Your task to perform on an android device: turn notification dots off Image 0: 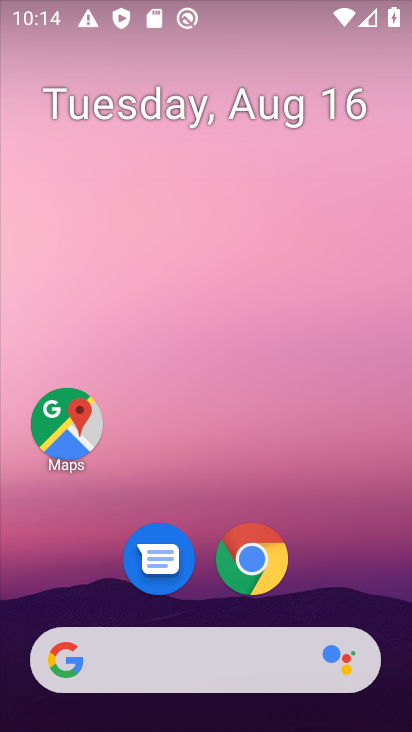
Step 0: drag from (187, 600) to (188, 114)
Your task to perform on an android device: turn notification dots off Image 1: 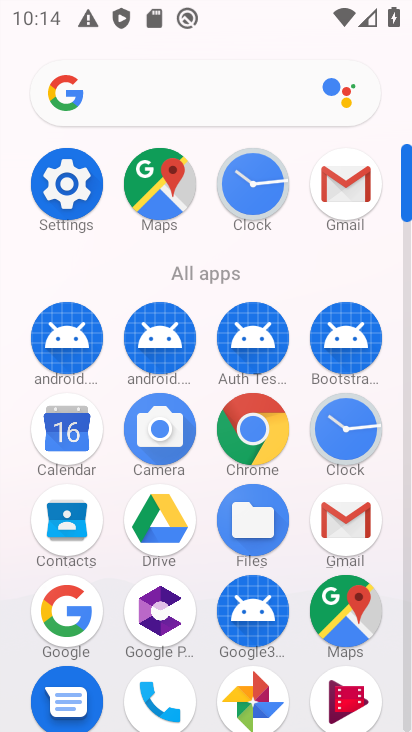
Step 1: click (64, 182)
Your task to perform on an android device: turn notification dots off Image 2: 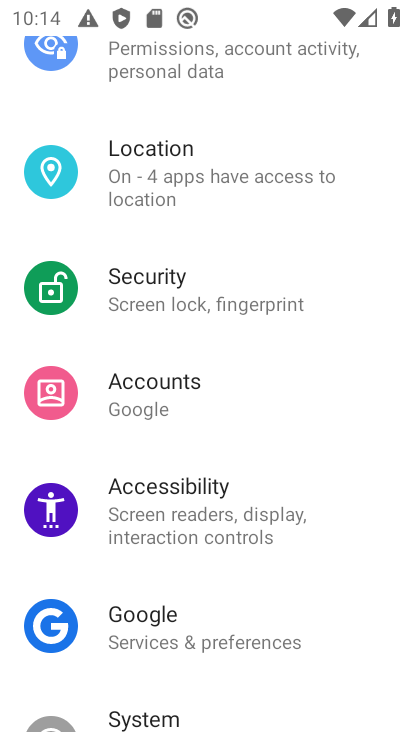
Step 2: drag from (250, 159) to (156, 715)
Your task to perform on an android device: turn notification dots off Image 3: 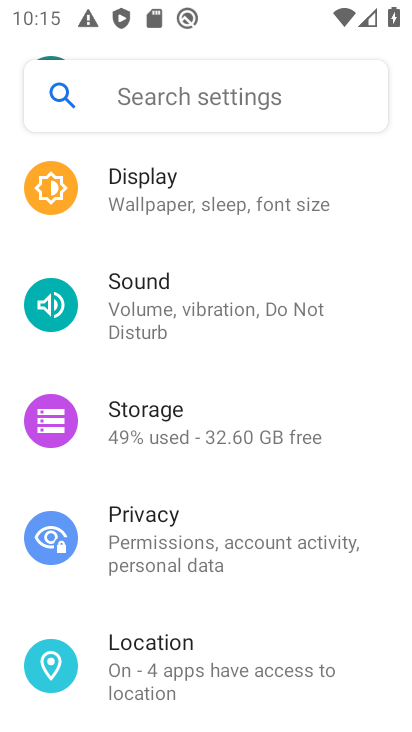
Step 3: drag from (227, 513) to (226, 606)
Your task to perform on an android device: turn notification dots off Image 4: 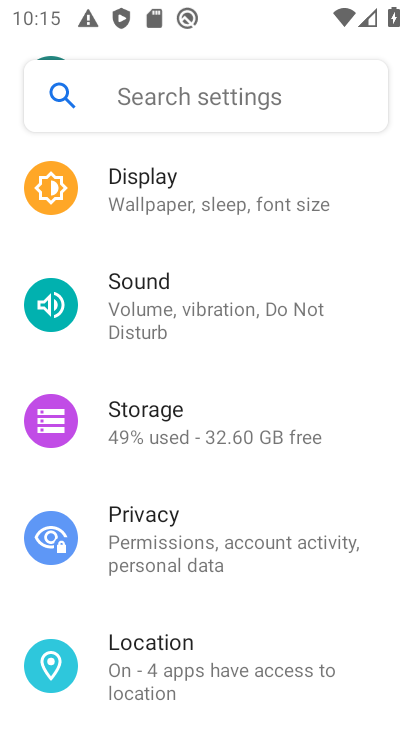
Step 4: drag from (229, 154) to (247, 416)
Your task to perform on an android device: turn notification dots off Image 5: 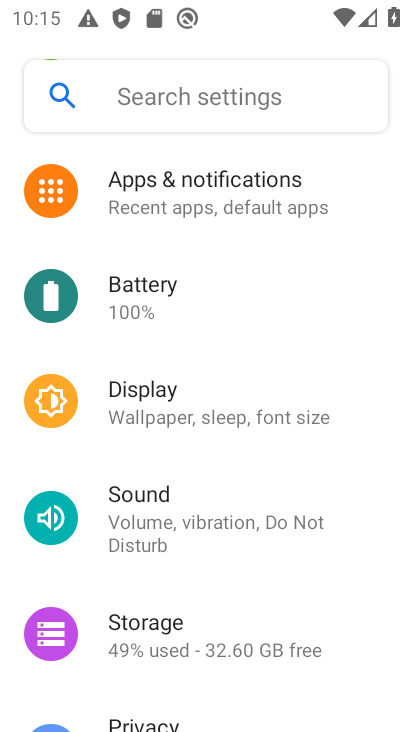
Step 5: click (174, 189)
Your task to perform on an android device: turn notification dots off Image 6: 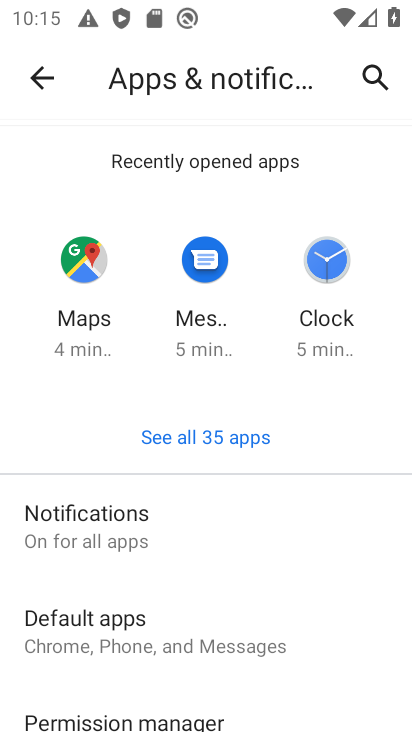
Step 6: drag from (188, 573) to (175, 255)
Your task to perform on an android device: turn notification dots off Image 7: 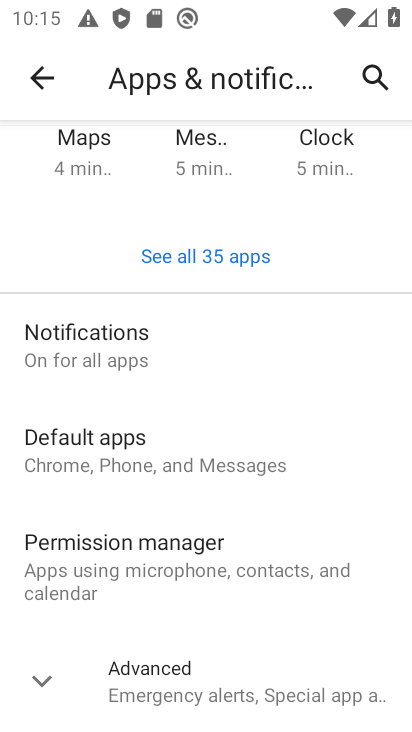
Step 7: click (79, 351)
Your task to perform on an android device: turn notification dots off Image 8: 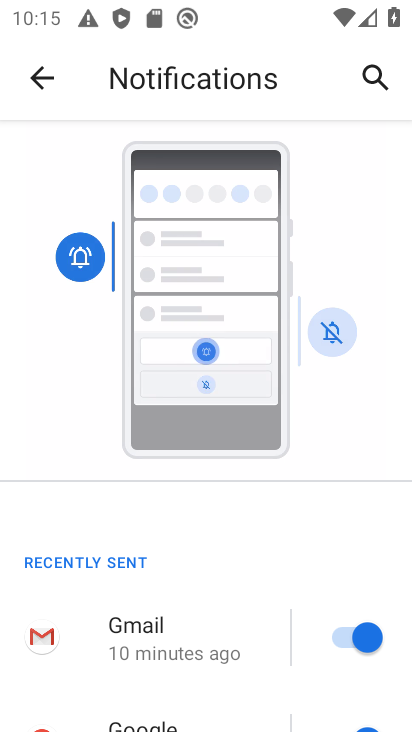
Step 8: drag from (200, 672) to (235, 297)
Your task to perform on an android device: turn notification dots off Image 9: 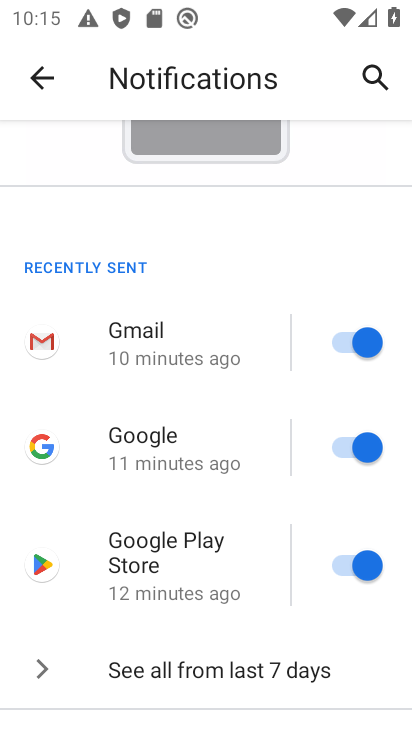
Step 9: drag from (182, 621) to (191, 327)
Your task to perform on an android device: turn notification dots off Image 10: 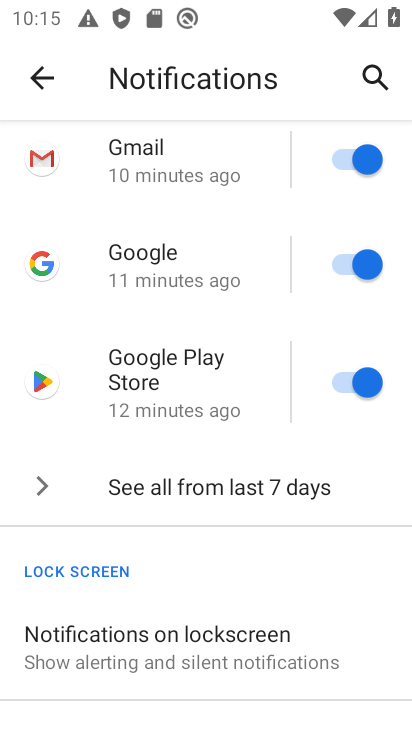
Step 10: drag from (212, 667) to (256, 285)
Your task to perform on an android device: turn notification dots off Image 11: 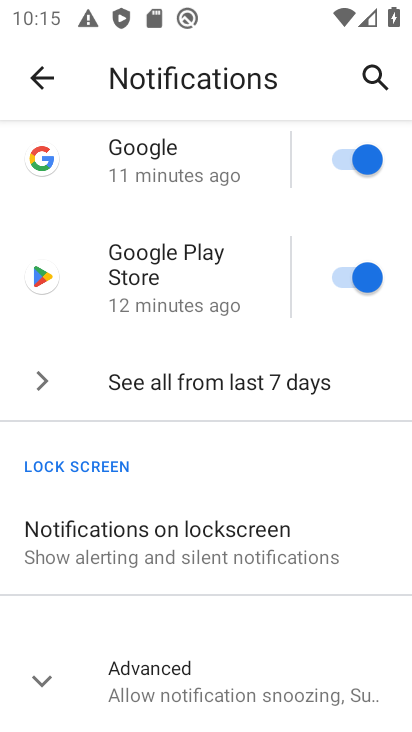
Step 11: drag from (222, 649) to (219, 164)
Your task to perform on an android device: turn notification dots off Image 12: 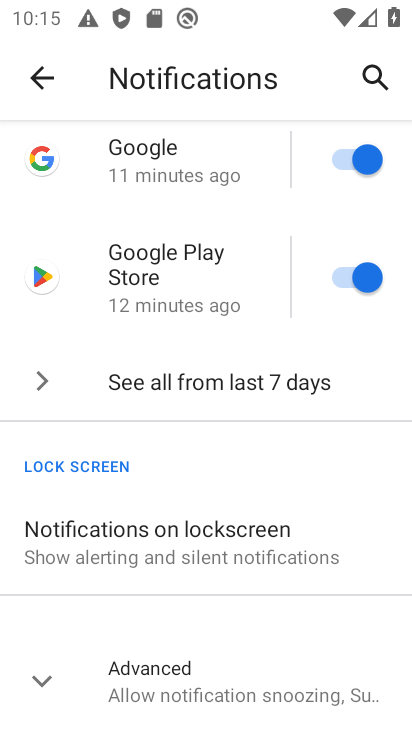
Step 12: click (128, 698)
Your task to perform on an android device: turn notification dots off Image 13: 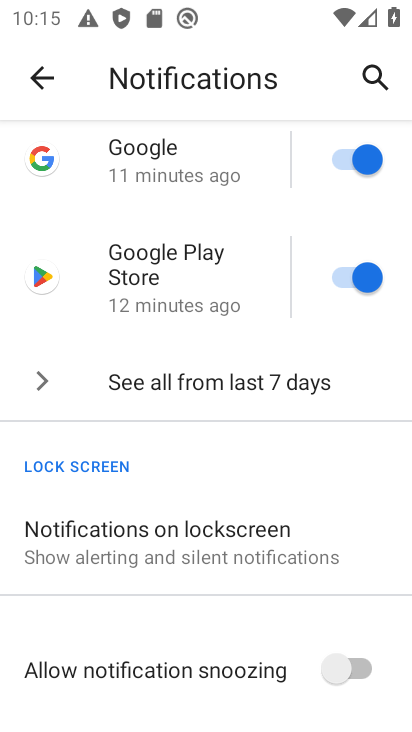
Step 13: drag from (237, 580) to (267, 354)
Your task to perform on an android device: turn notification dots off Image 14: 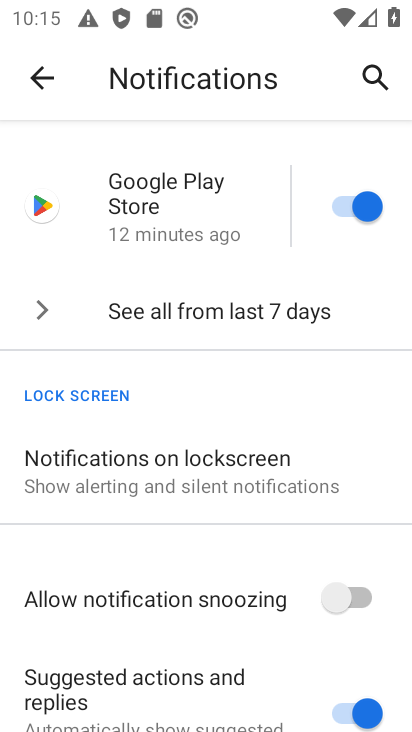
Step 14: drag from (282, 662) to (284, 382)
Your task to perform on an android device: turn notification dots off Image 15: 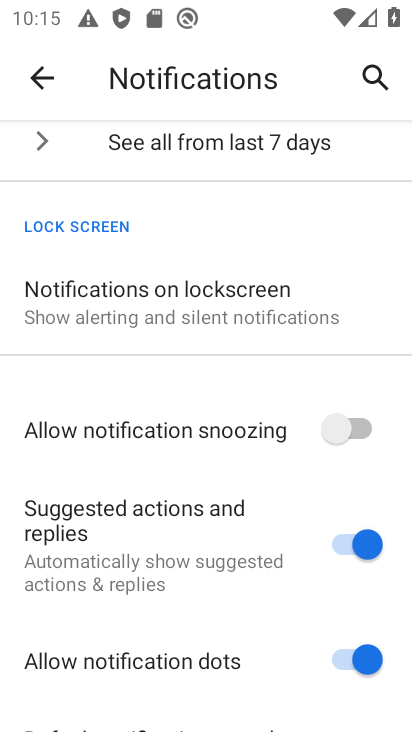
Step 15: click (342, 668)
Your task to perform on an android device: turn notification dots off Image 16: 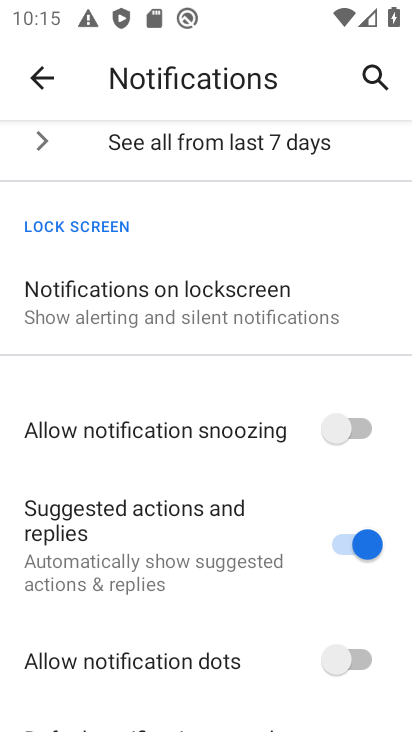
Step 16: task complete